Your task to perform on an android device: install app "Gboard" Image 0: 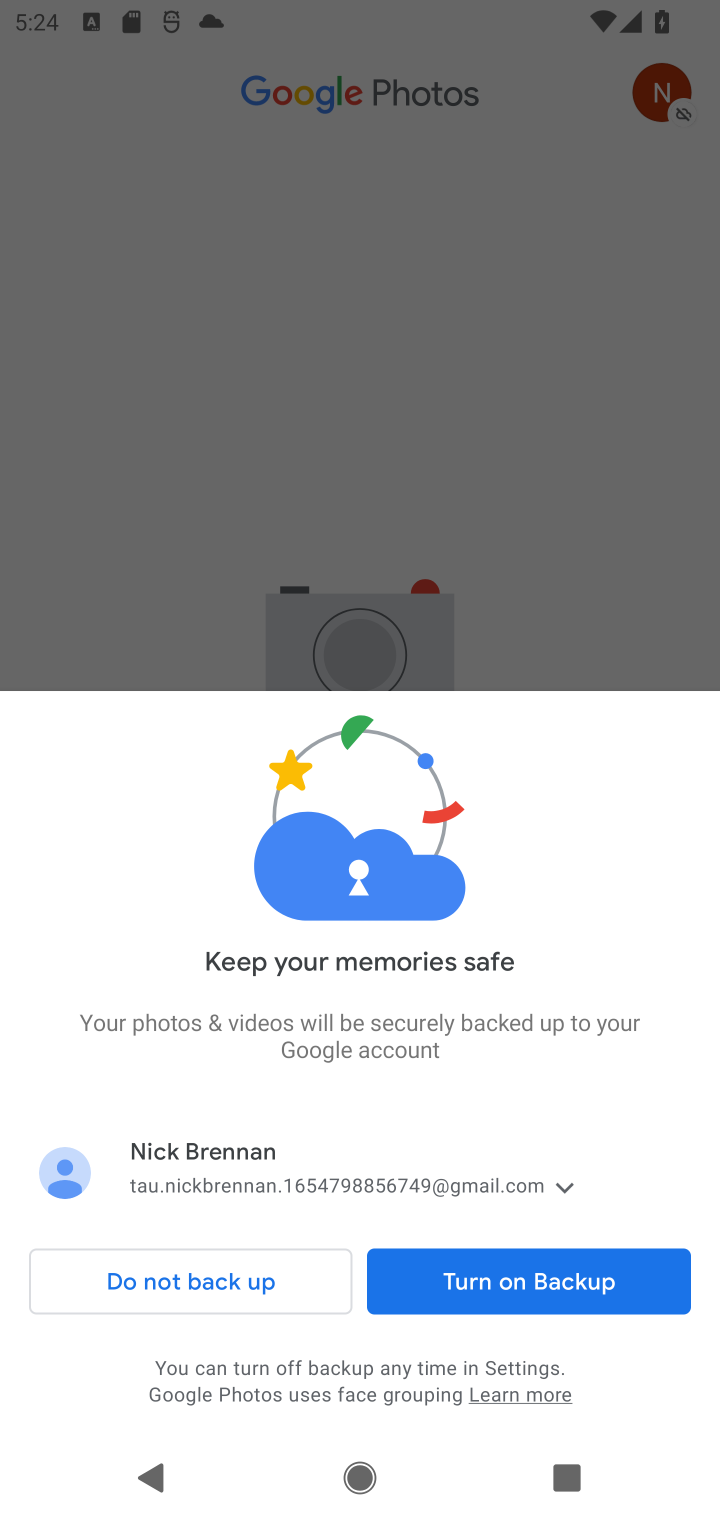
Step 0: press home button
Your task to perform on an android device: install app "Gboard" Image 1: 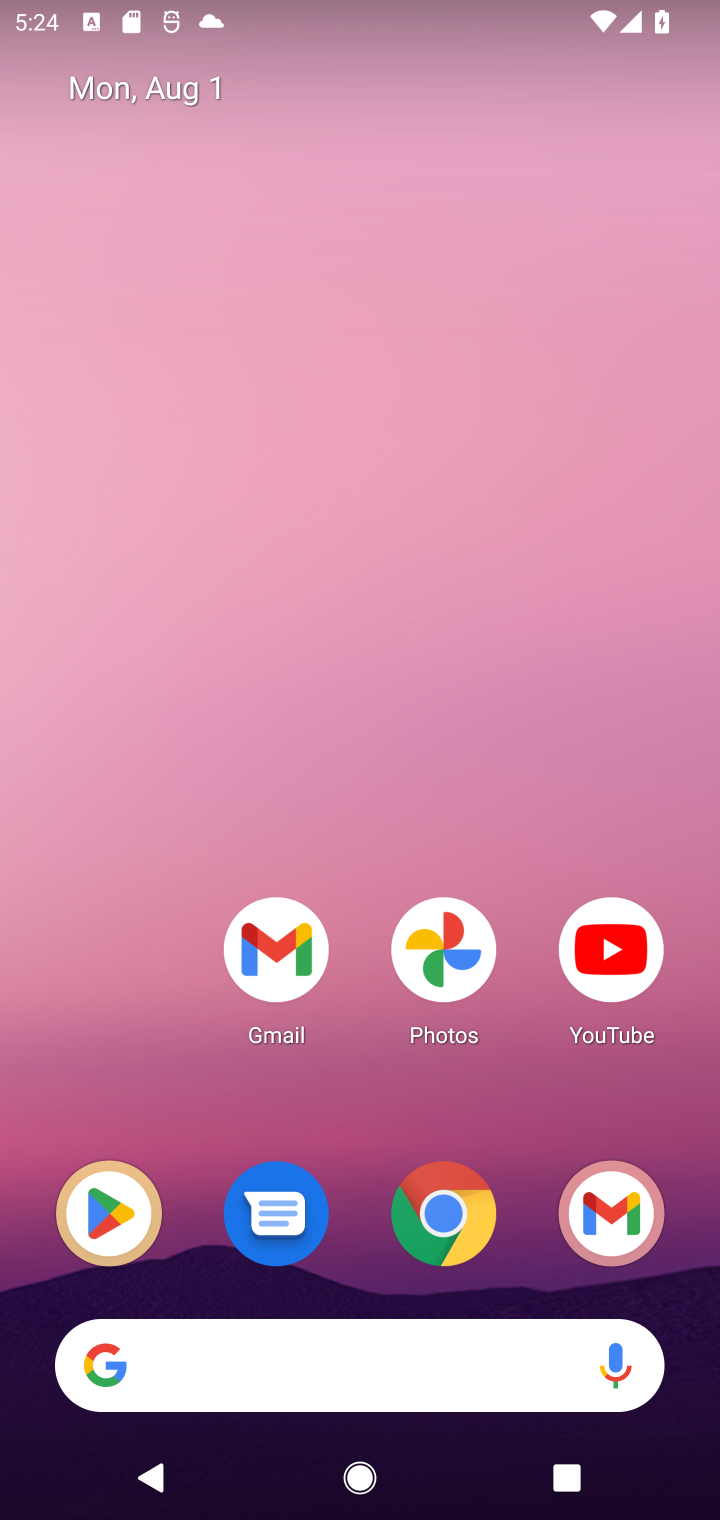
Step 1: drag from (522, 1052) to (464, 27)
Your task to perform on an android device: install app "Gboard" Image 2: 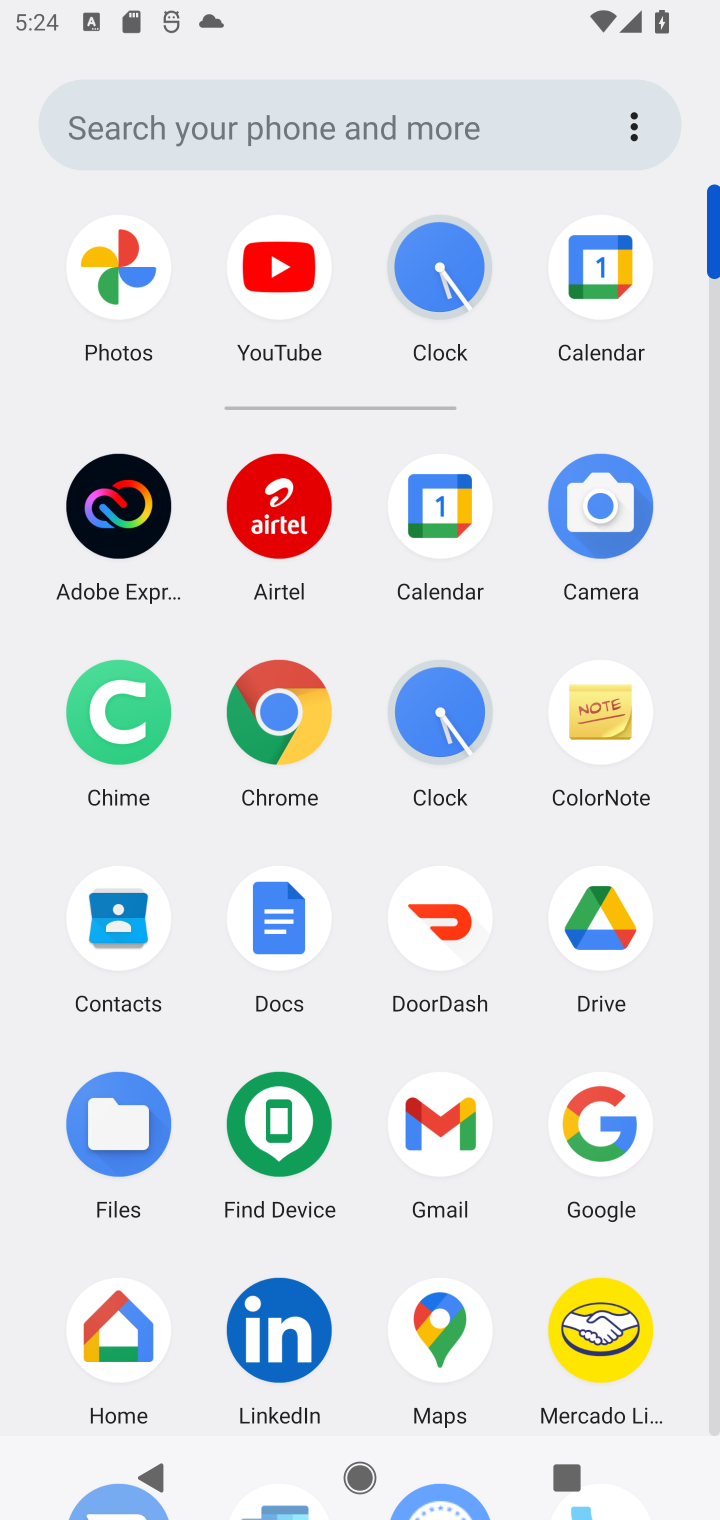
Step 2: drag from (375, 1251) to (262, 162)
Your task to perform on an android device: install app "Gboard" Image 3: 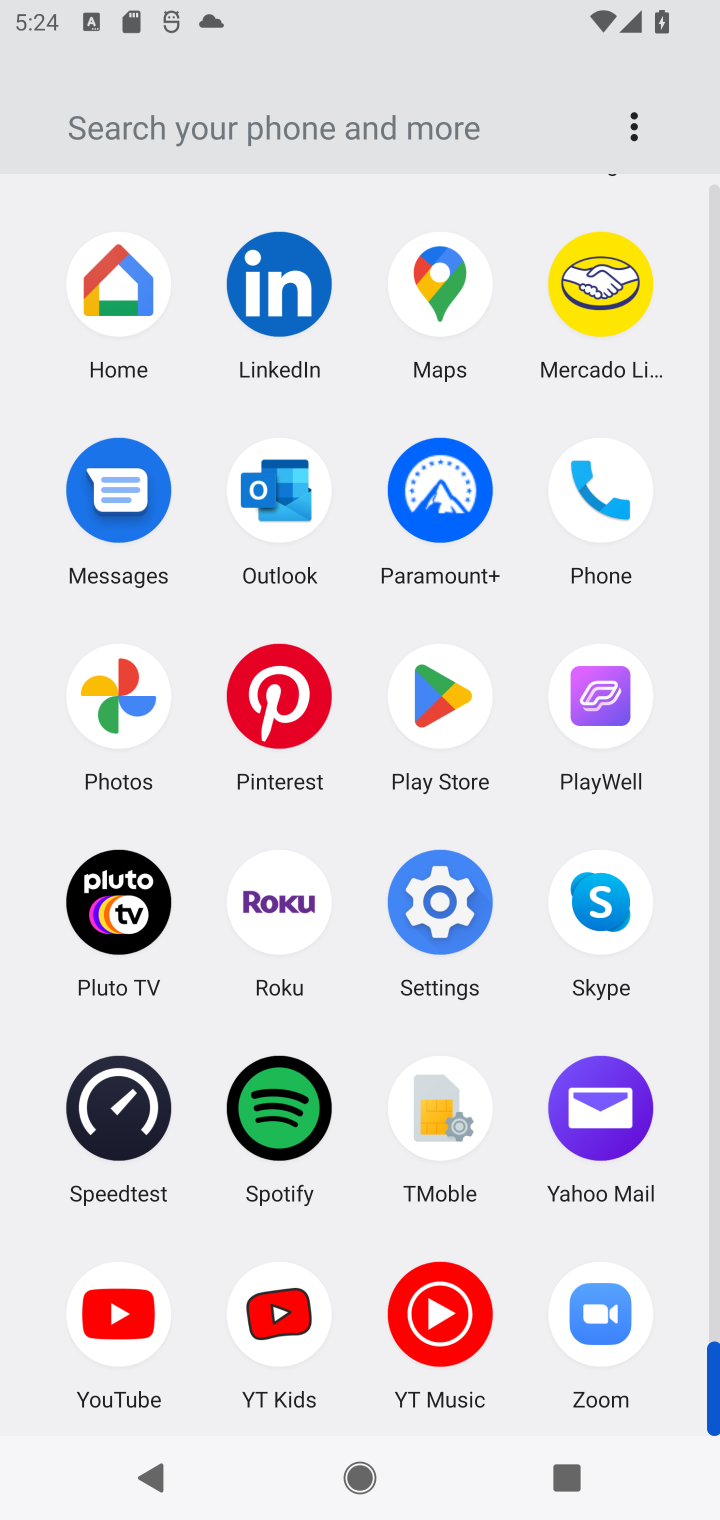
Step 3: click (461, 687)
Your task to perform on an android device: install app "Gboard" Image 4: 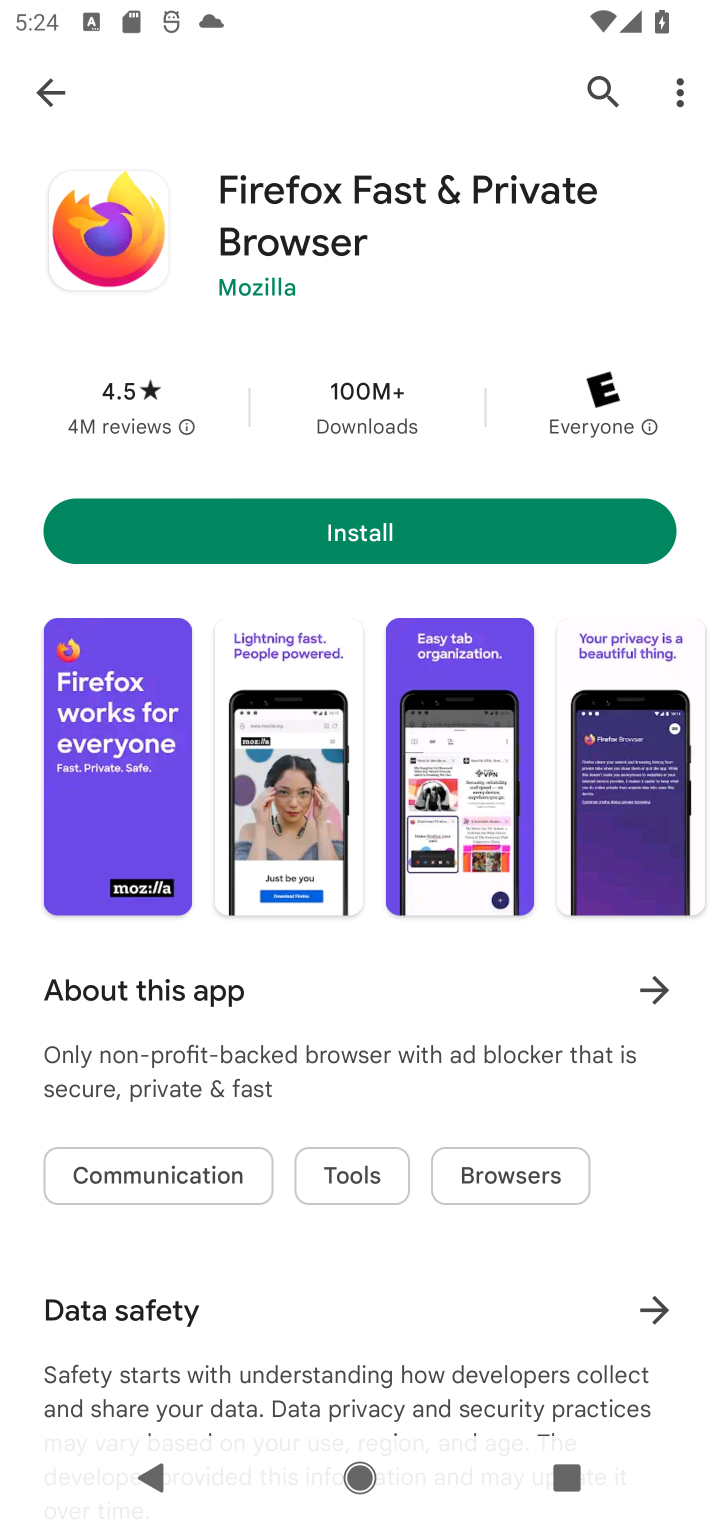
Step 4: click (601, 92)
Your task to perform on an android device: install app "Gboard" Image 5: 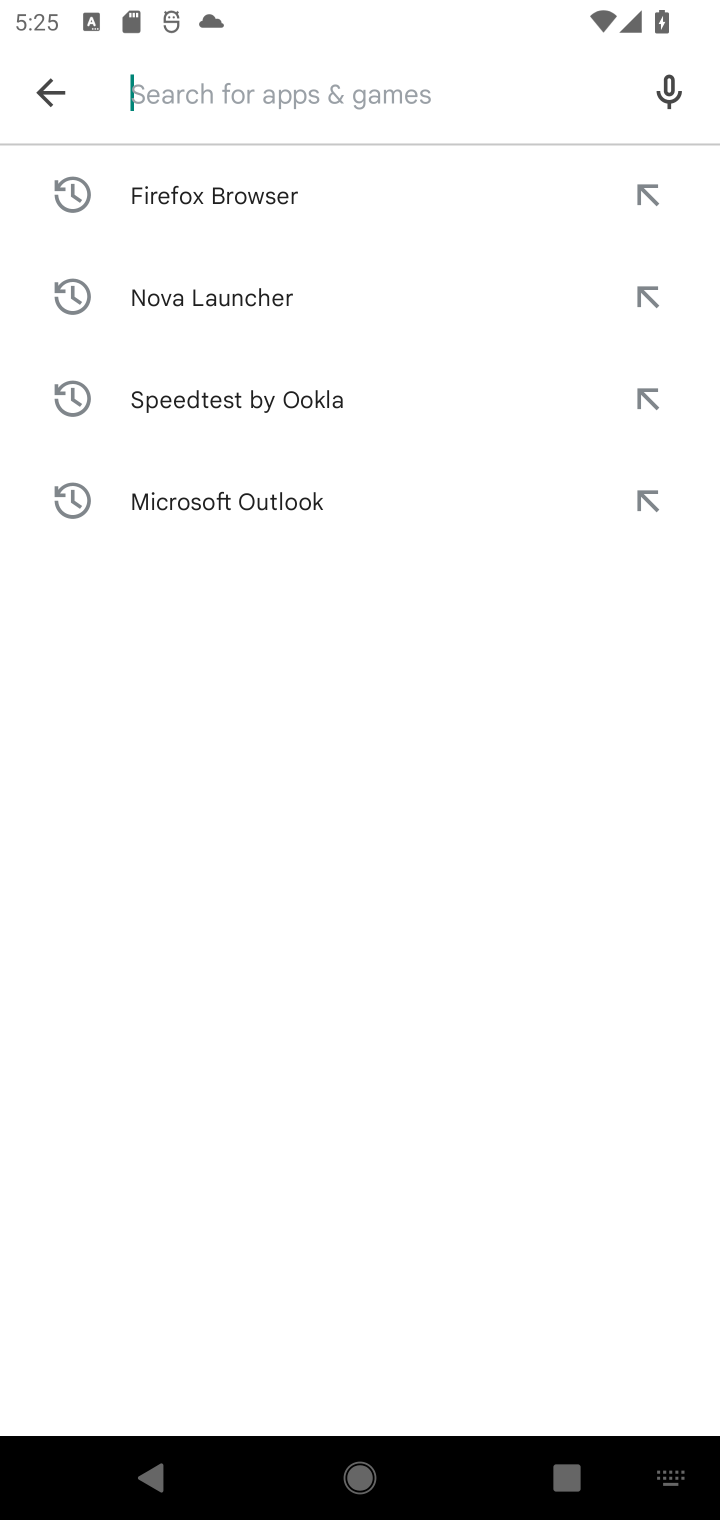
Step 5: type "Gboard"
Your task to perform on an android device: install app "Gboard" Image 6: 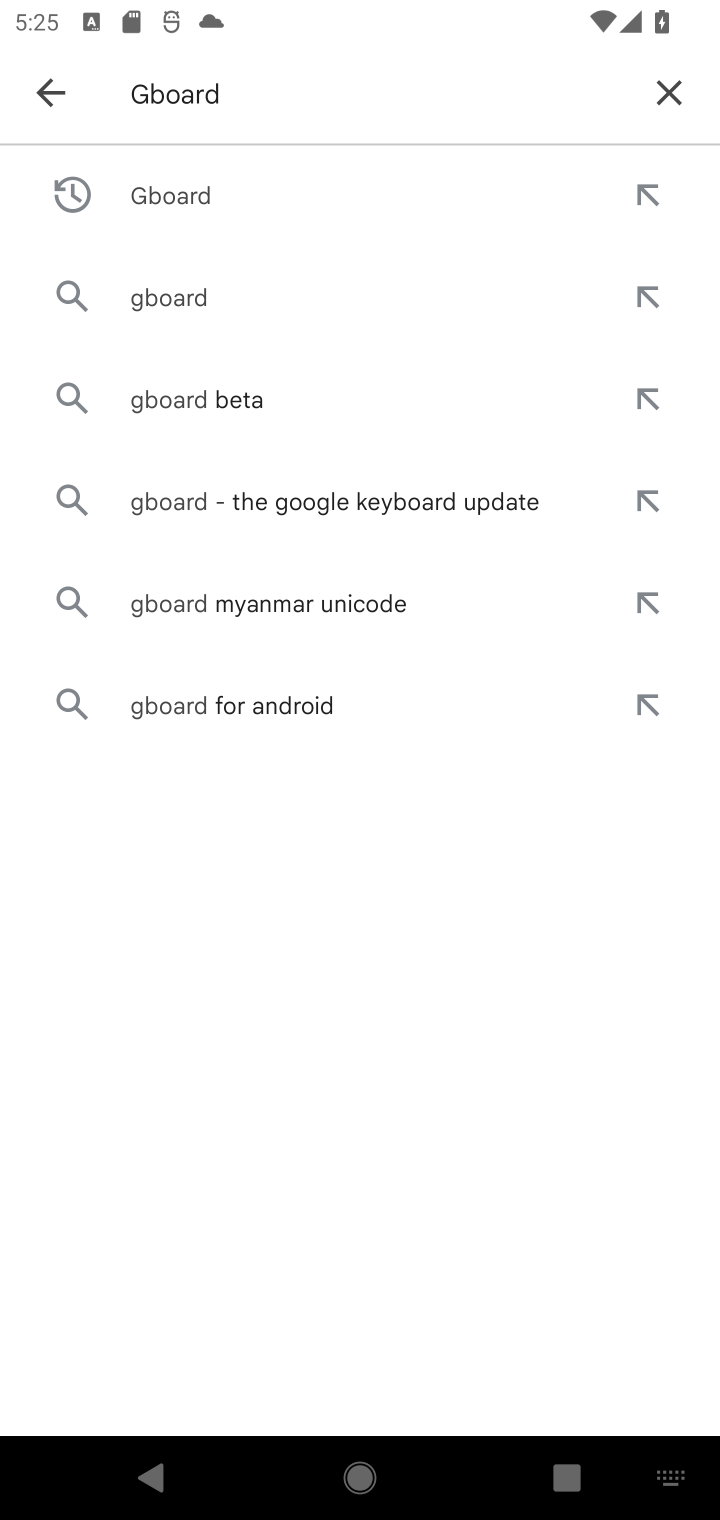
Step 6: press enter
Your task to perform on an android device: install app "Gboard" Image 7: 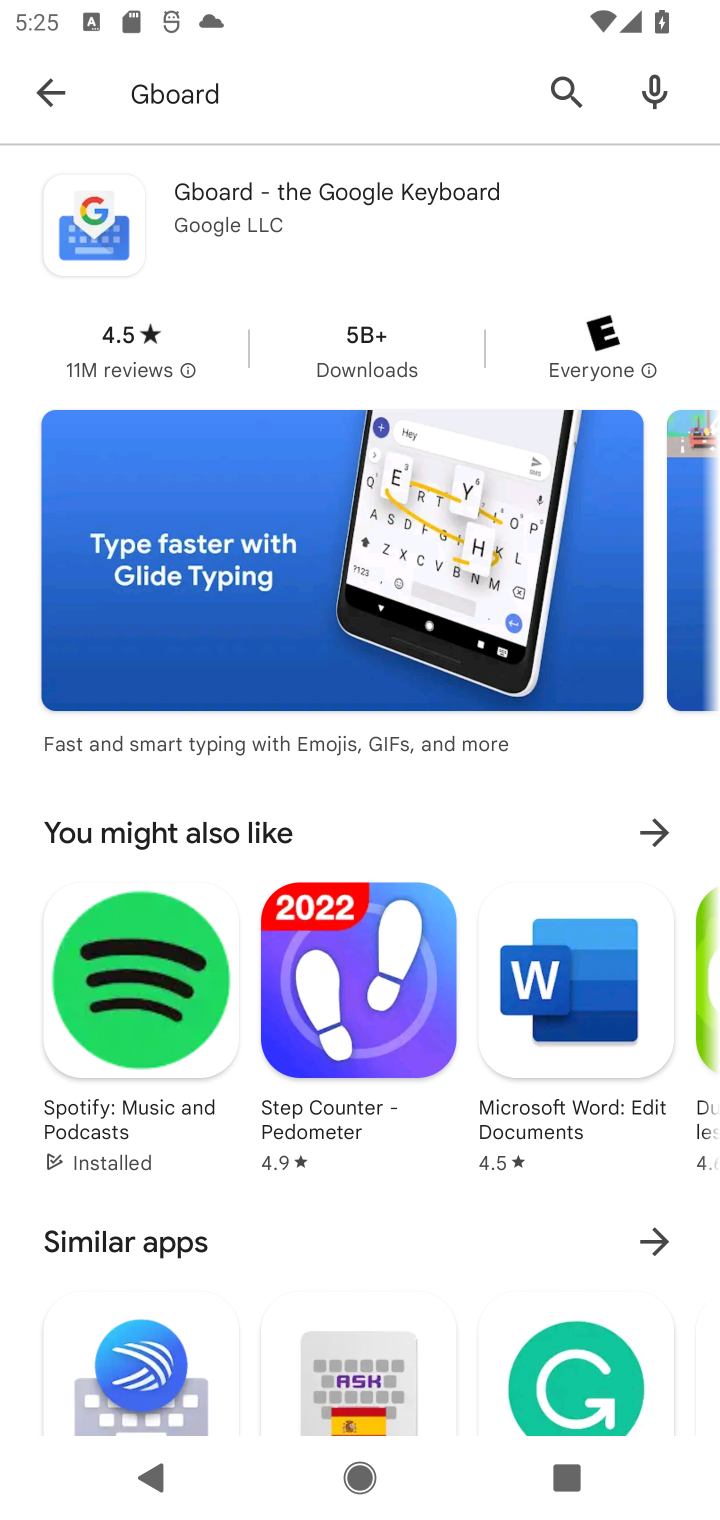
Step 7: click (110, 232)
Your task to perform on an android device: install app "Gboard" Image 8: 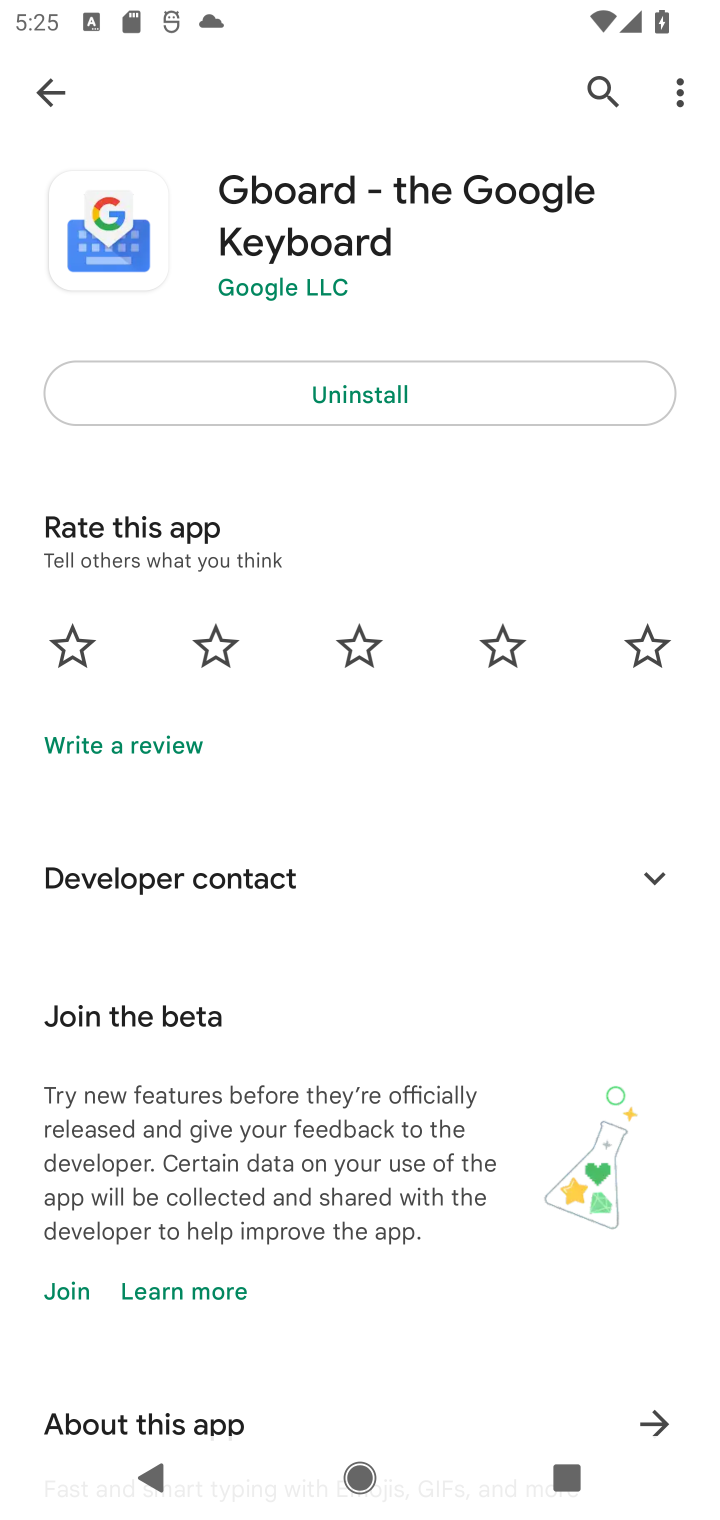
Step 8: task complete